Your task to perform on an android device: toggle data saver in the chrome app Image 0: 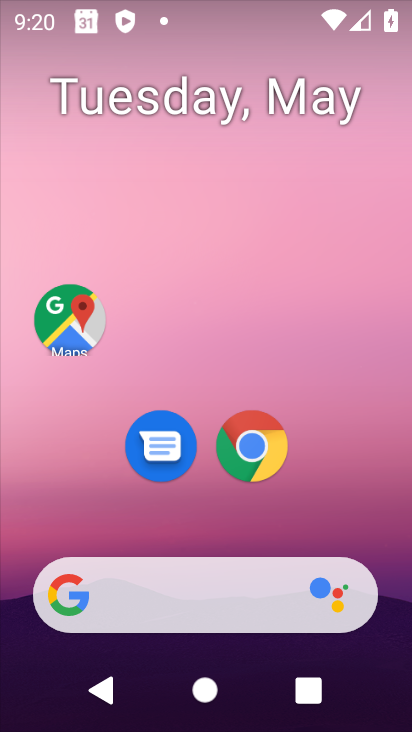
Step 0: click (200, 607)
Your task to perform on an android device: toggle data saver in the chrome app Image 1: 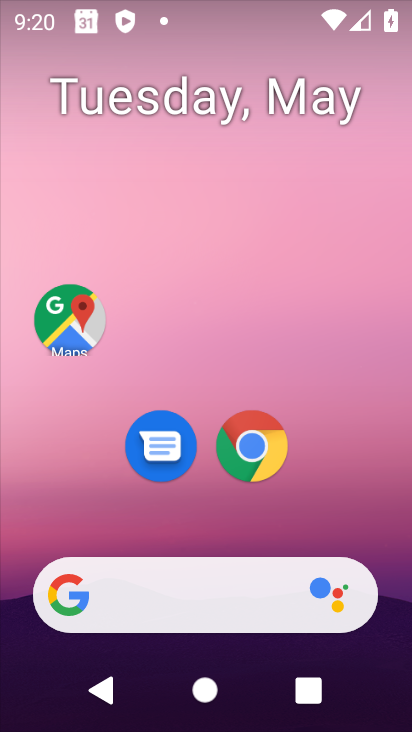
Step 1: drag from (195, 529) to (254, 237)
Your task to perform on an android device: toggle data saver in the chrome app Image 2: 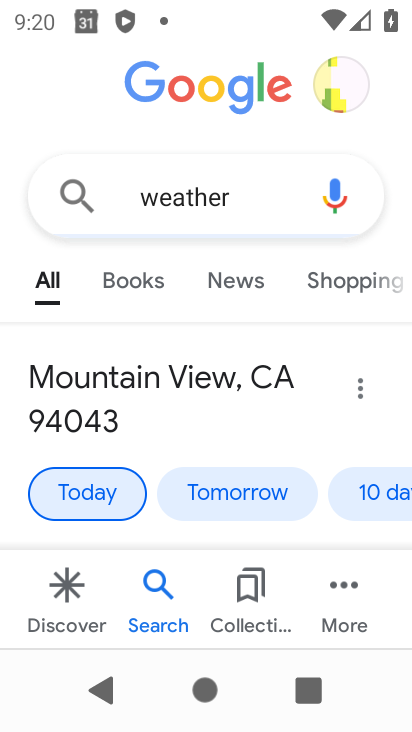
Step 2: press home button
Your task to perform on an android device: toggle data saver in the chrome app Image 3: 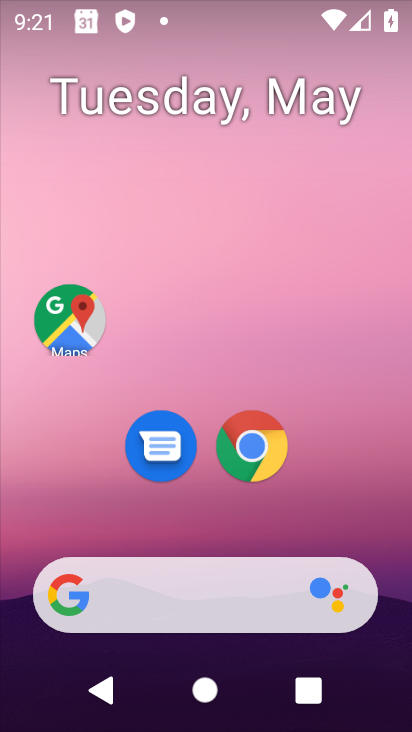
Step 3: click (255, 437)
Your task to perform on an android device: toggle data saver in the chrome app Image 4: 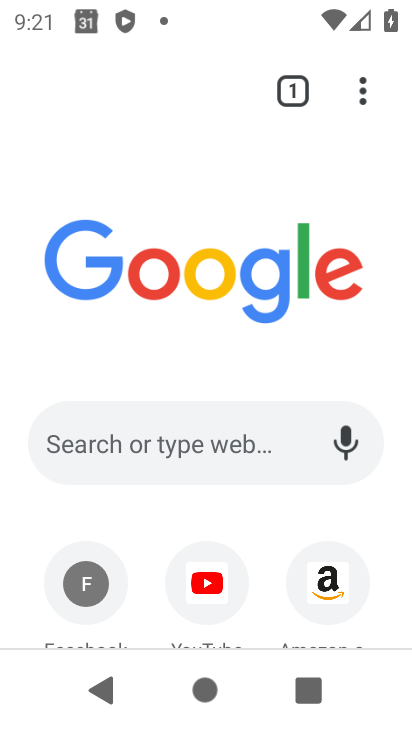
Step 4: click (361, 89)
Your task to perform on an android device: toggle data saver in the chrome app Image 5: 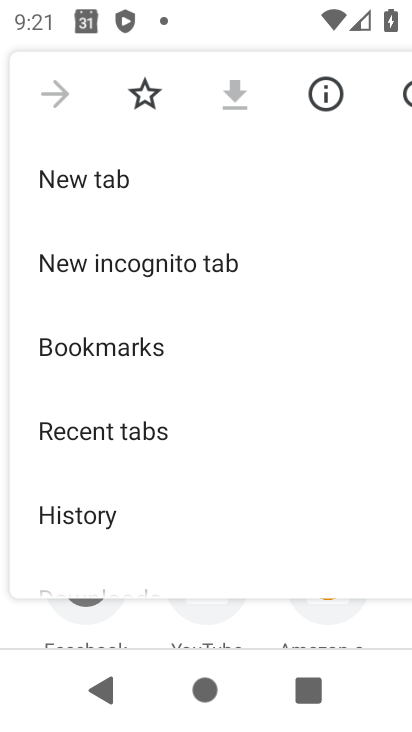
Step 5: drag from (164, 490) to (218, 107)
Your task to perform on an android device: toggle data saver in the chrome app Image 6: 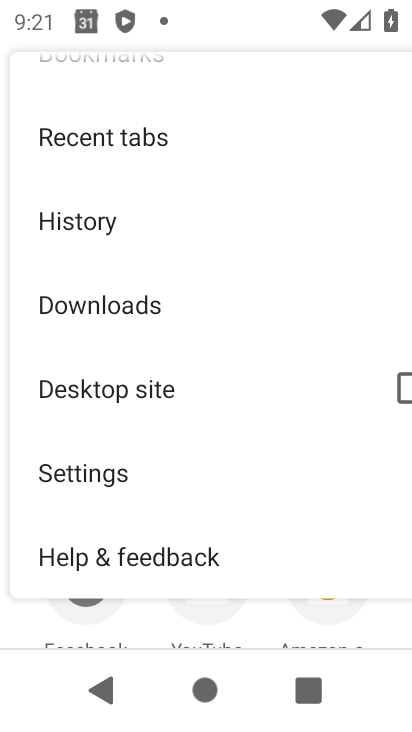
Step 6: click (119, 470)
Your task to perform on an android device: toggle data saver in the chrome app Image 7: 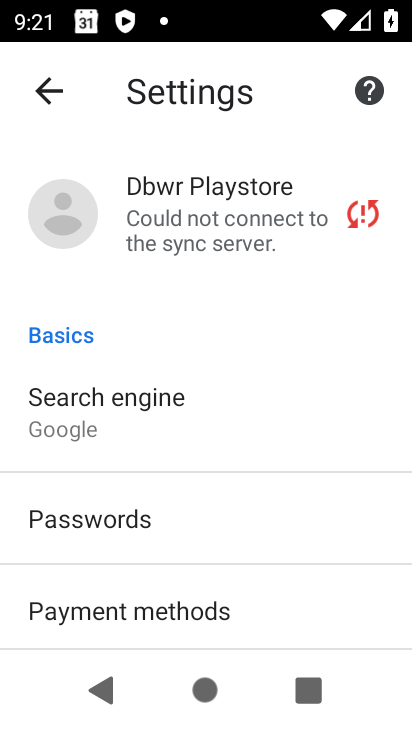
Step 7: drag from (184, 573) to (252, 148)
Your task to perform on an android device: toggle data saver in the chrome app Image 8: 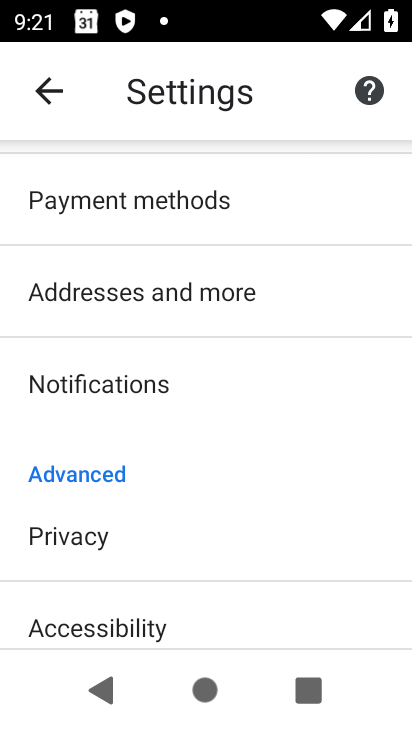
Step 8: drag from (135, 563) to (183, 214)
Your task to perform on an android device: toggle data saver in the chrome app Image 9: 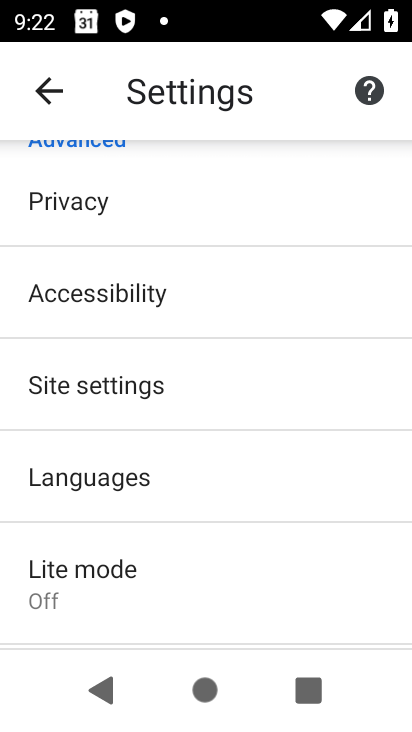
Step 9: click (132, 579)
Your task to perform on an android device: toggle data saver in the chrome app Image 10: 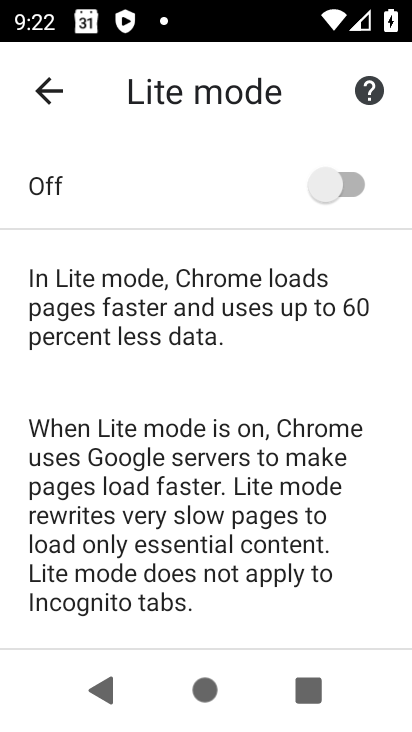
Step 10: click (336, 186)
Your task to perform on an android device: toggle data saver in the chrome app Image 11: 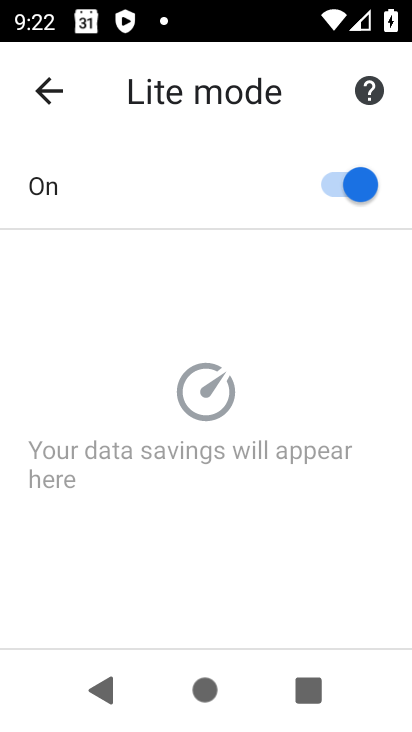
Step 11: task complete